Your task to perform on an android device: When is my next appointment? Image 0: 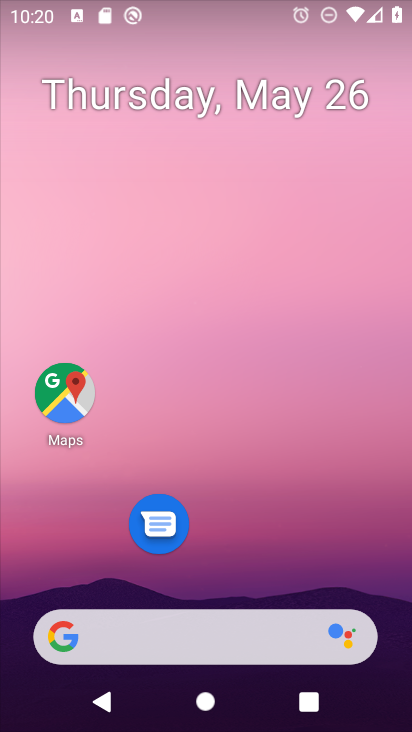
Step 0: drag from (283, 521) to (231, 1)
Your task to perform on an android device: When is my next appointment? Image 1: 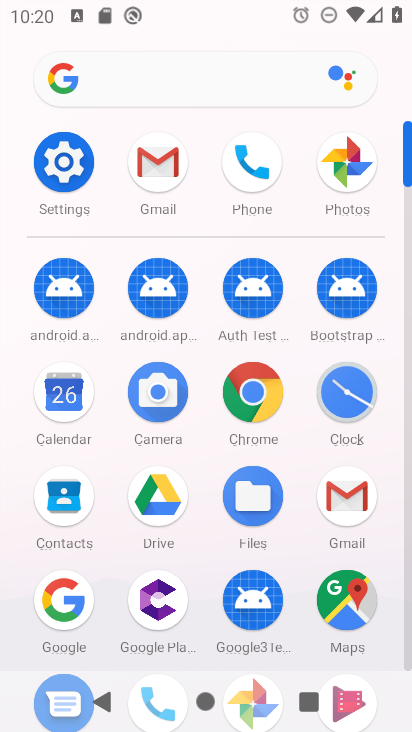
Step 1: click (71, 392)
Your task to perform on an android device: When is my next appointment? Image 2: 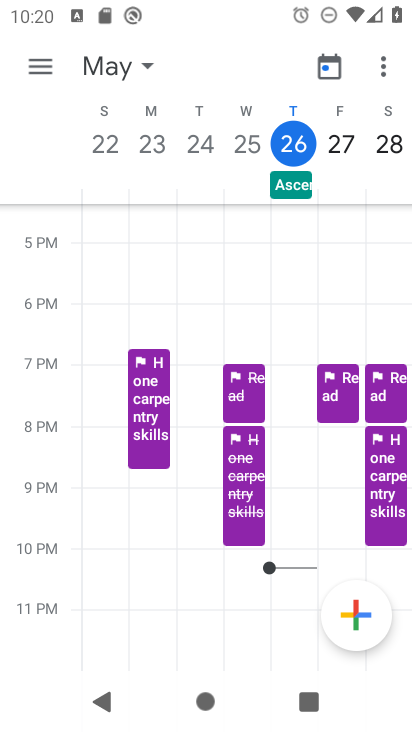
Step 2: click (294, 146)
Your task to perform on an android device: When is my next appointment? Image 3: 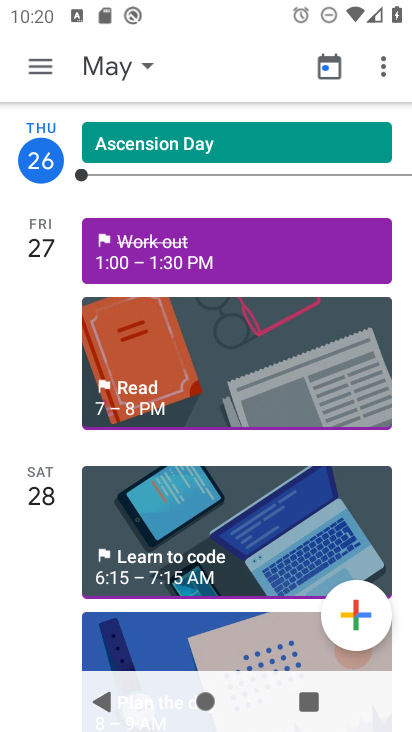
Step 3: task complete